Your task to perform on an android device: Clear the shopping cart on newegg. Add "bose soundlink" to the cart on newegg, then select checkout. Image 0: 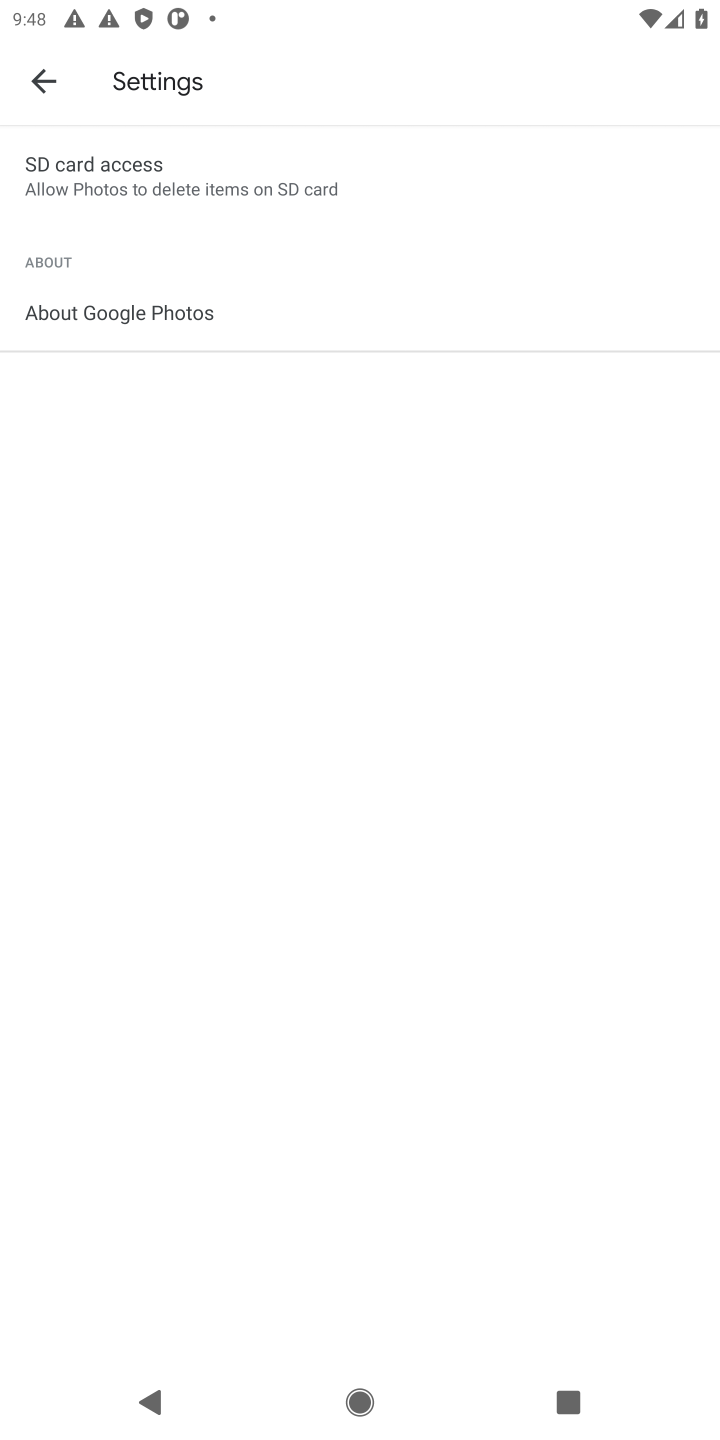
Step 0: press home button
Your task to perform on an android device: Clear the shopping cart on newegg. Add "bose soundlink" to the cart on newegg, then select checkout. Image 1: 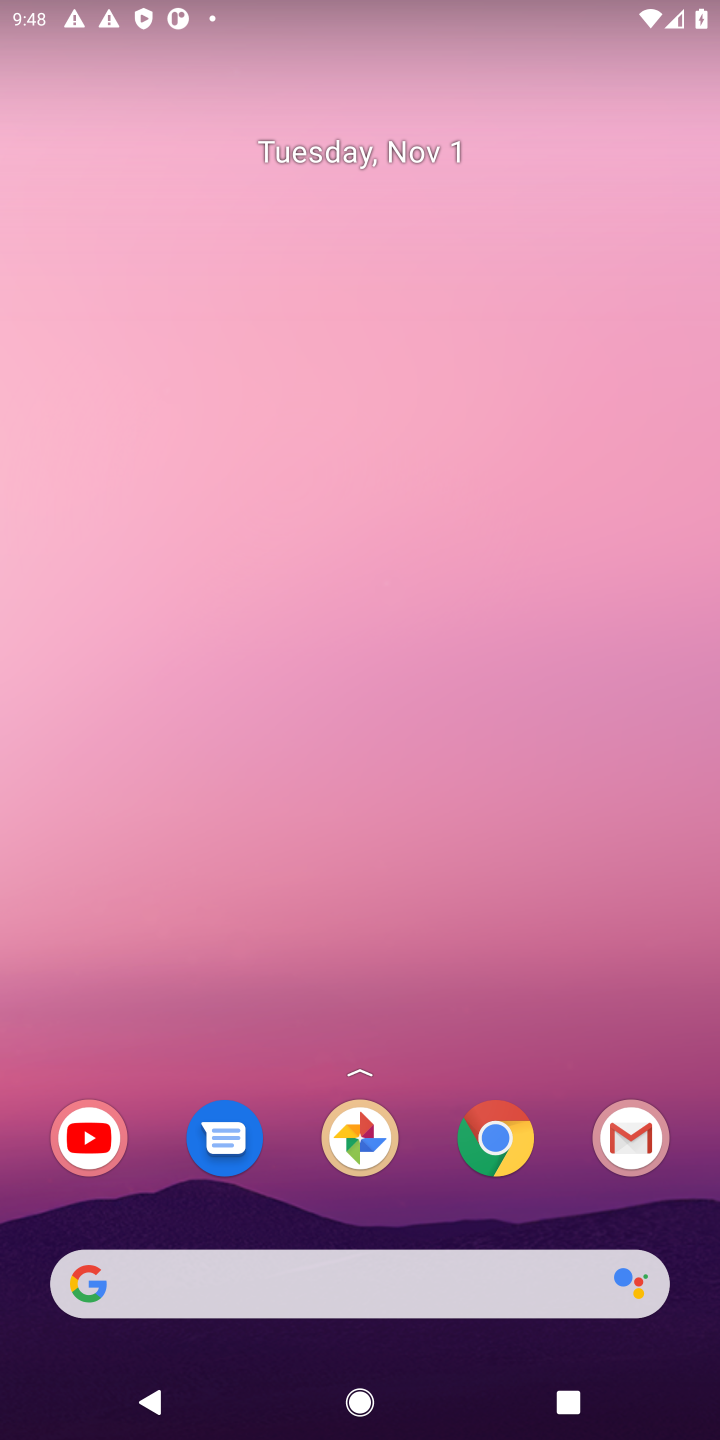
Step 1: drag from (407, 1146) to (377, 282)
Your task to perform on an android device: Clear the shopping cart on newegg. Add "bose soundlink" to the cart on newegg, then select checkout. Image 2: 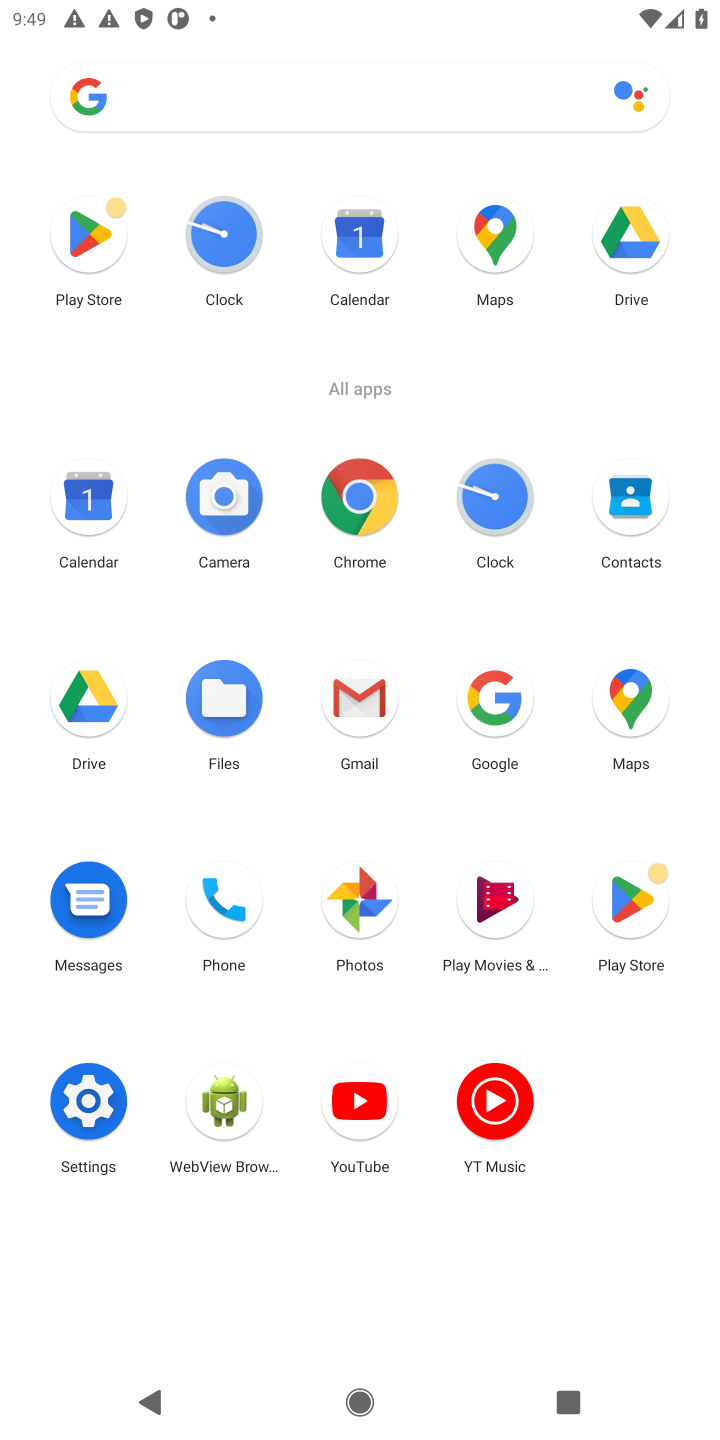
Step 2: click (493, 688)
Your task to perform on an android device: Clear the shopping cart on newegg. Add "bose soundlink" to the cart on newegg, then select checkout. Image 3: 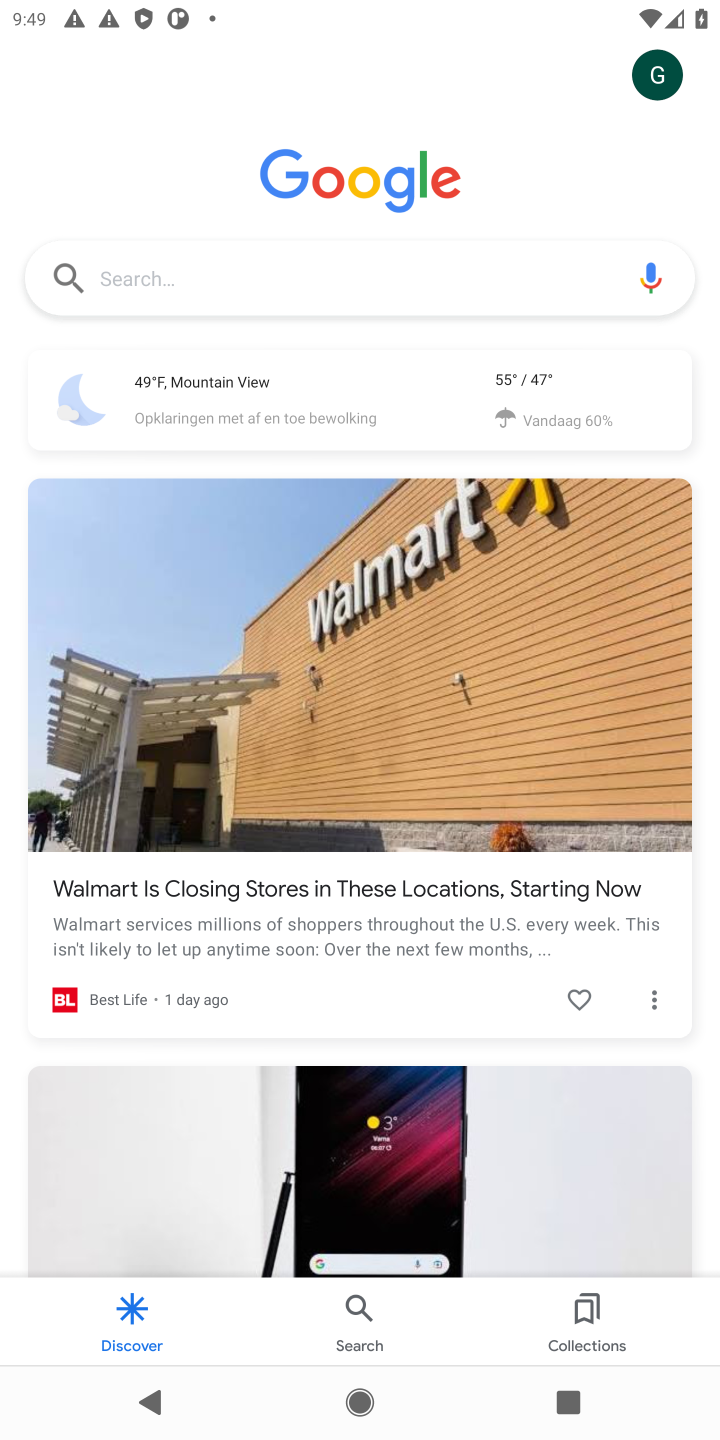
Step 3: click (251, 283)
Your task to perform on an android device: Clear the shopping cart on newegg. Add "bose soundlink" to the cart on newegg, then select checkout. Image 4: 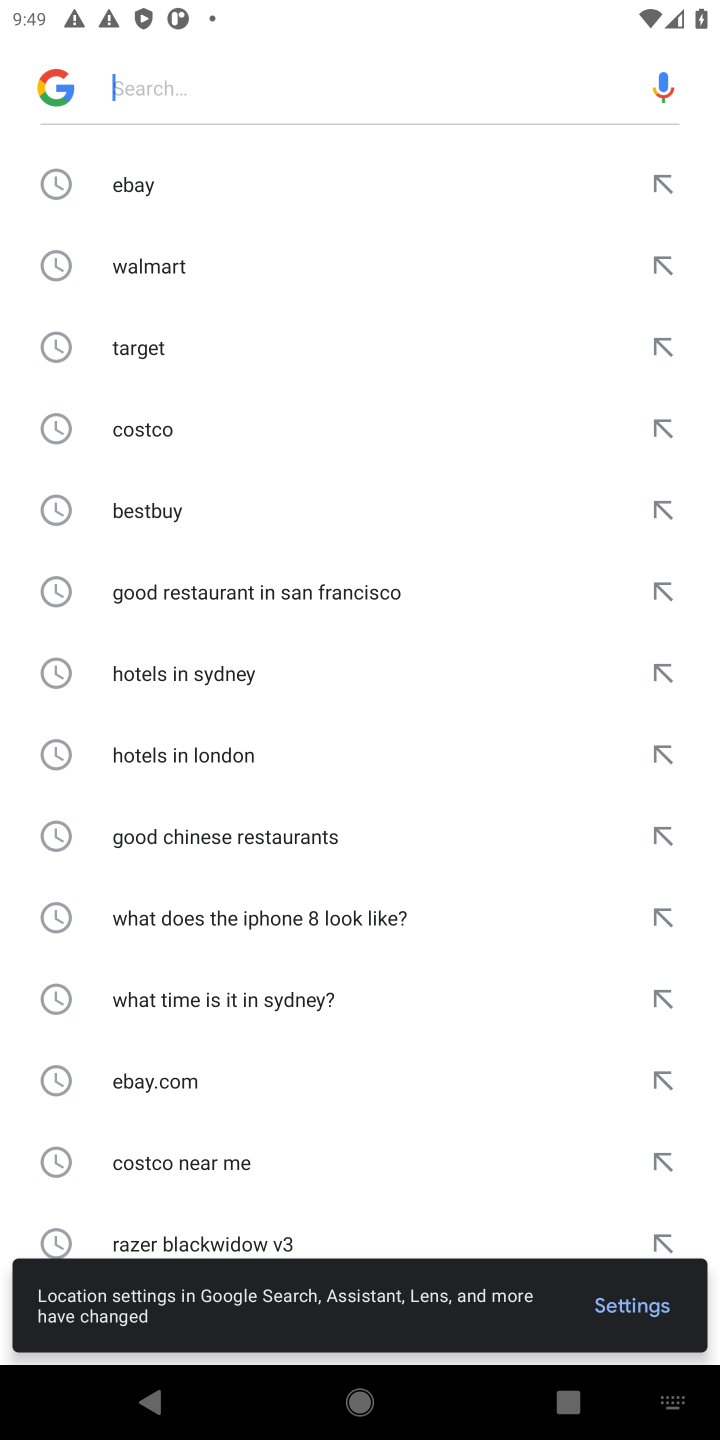
Step 4: type "newegg"
Your task to perform on an android device: Clear the shopping cart on newegg. Add "bose soundlink" to the cart on newegg, then select checkout. Image 5: 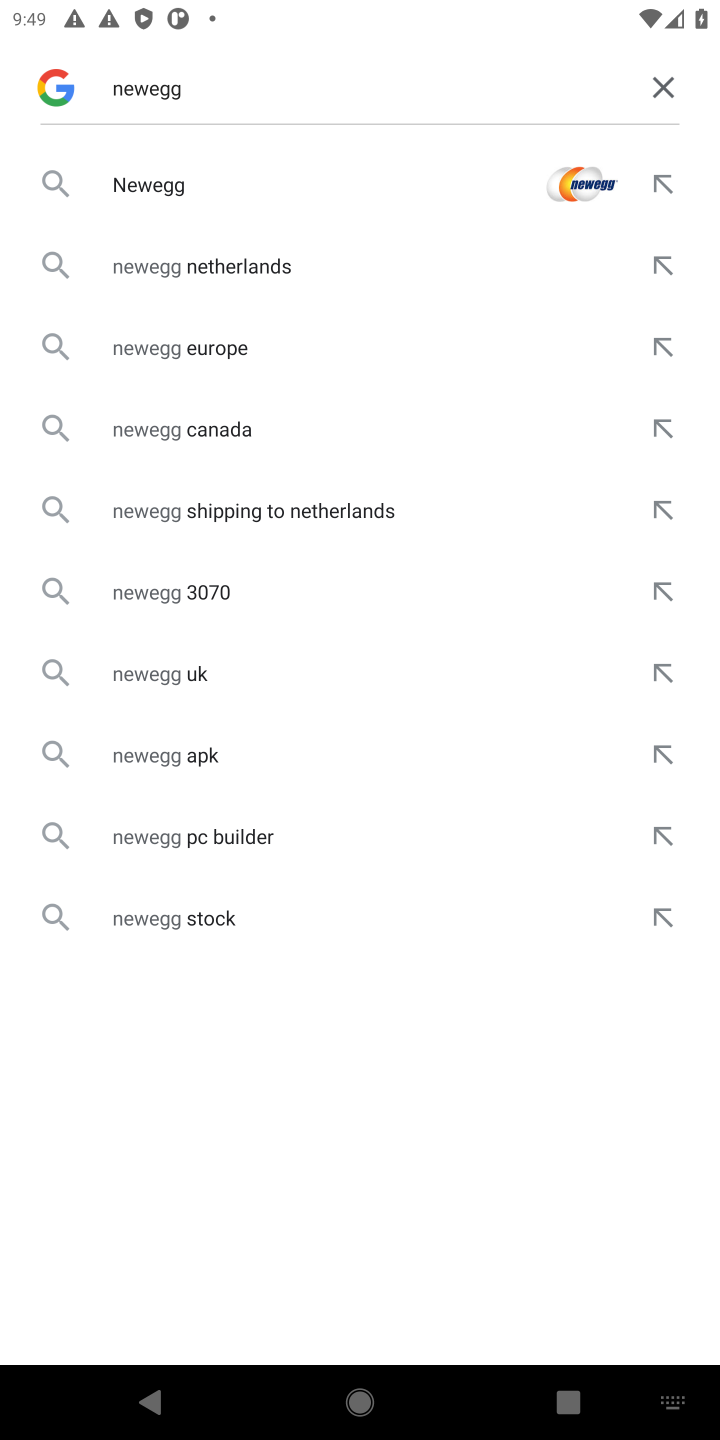
Step 5: type ""
Your task to perform on an android device: Clear the shopping cart on newegg. Add "bose soundlink" to the cart on newegg, then select checkout. Image 6: 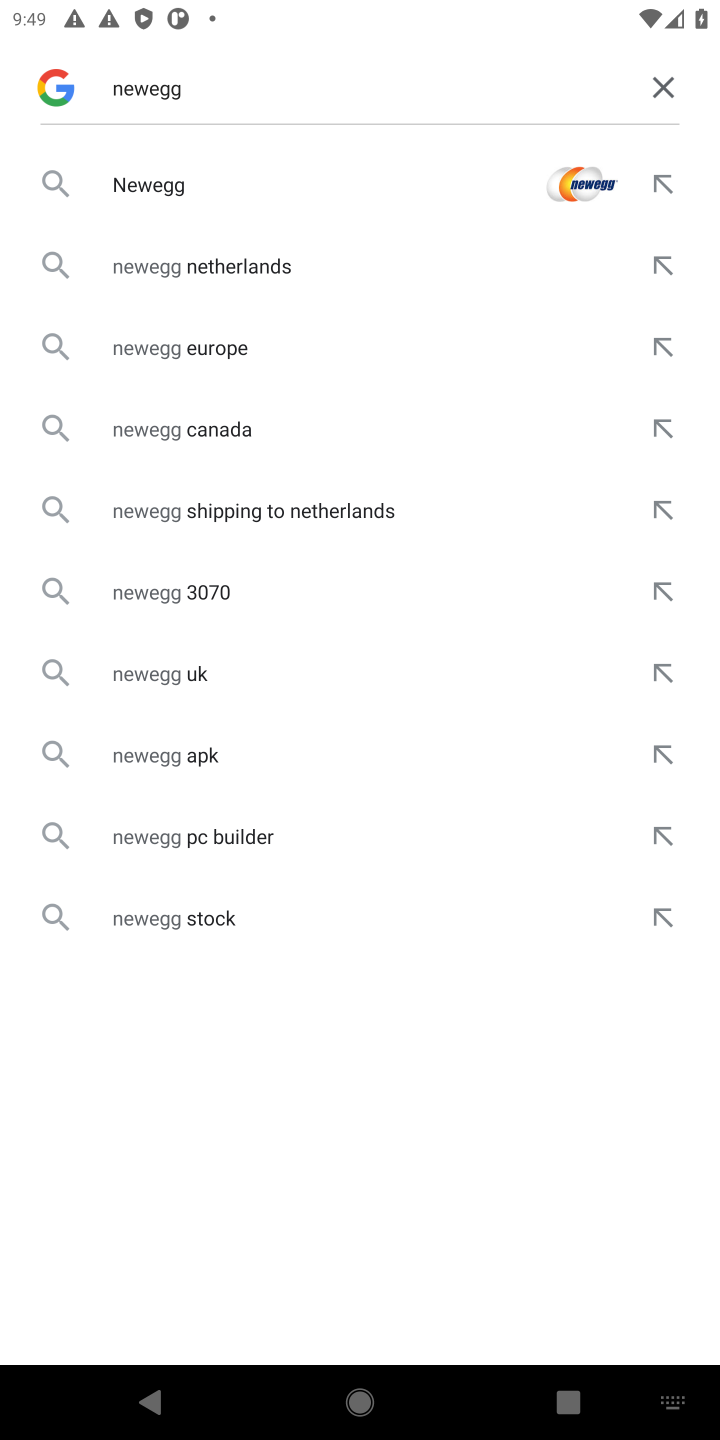
Step 6: click (153, 200)
Your task to perform on an android device: Clear the shopping cart on newegg. Add "bose soundlink" to the cart on newegg, then select checkout. Image 7: 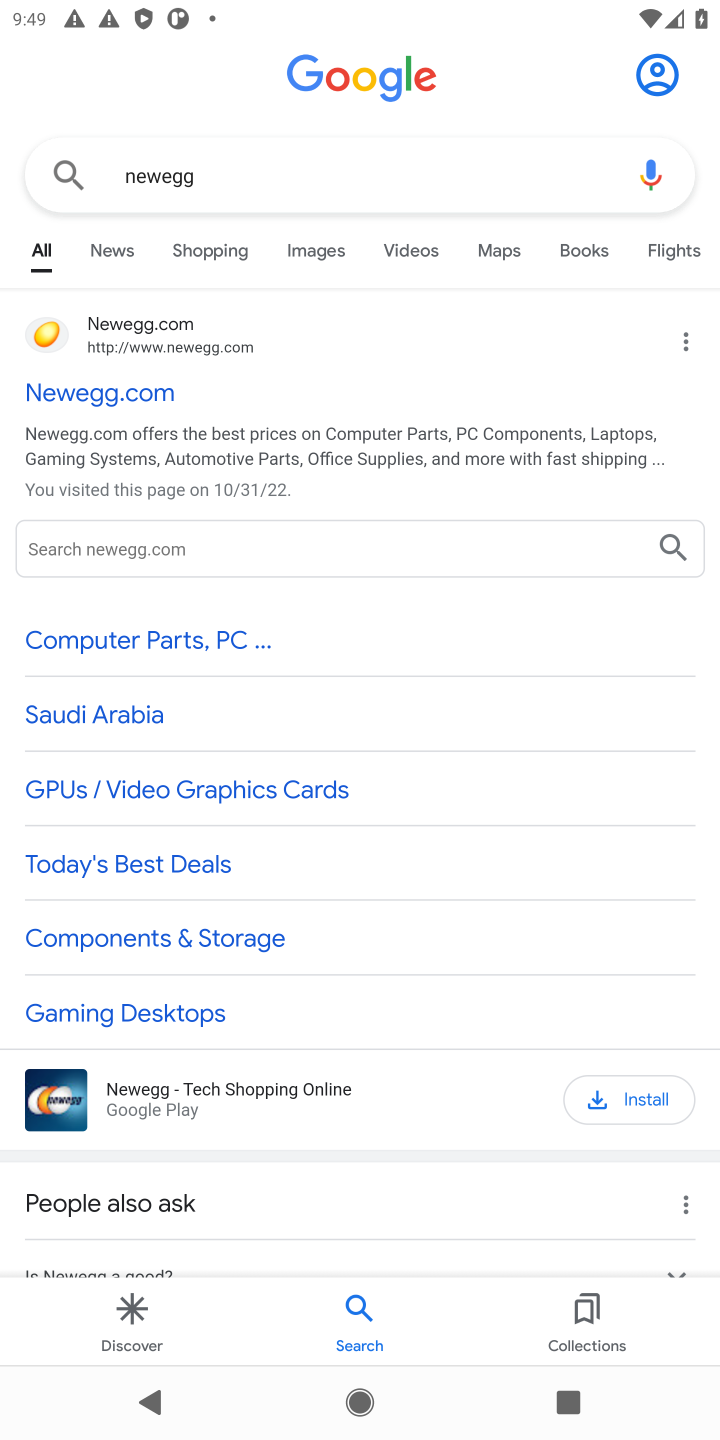
Step 7: click (155, 398)
Your task to perform on an android device: Clear the shopping cart on newegg. Add "bose soundlink" to the cart on newegg, then select checkout. Image 8: 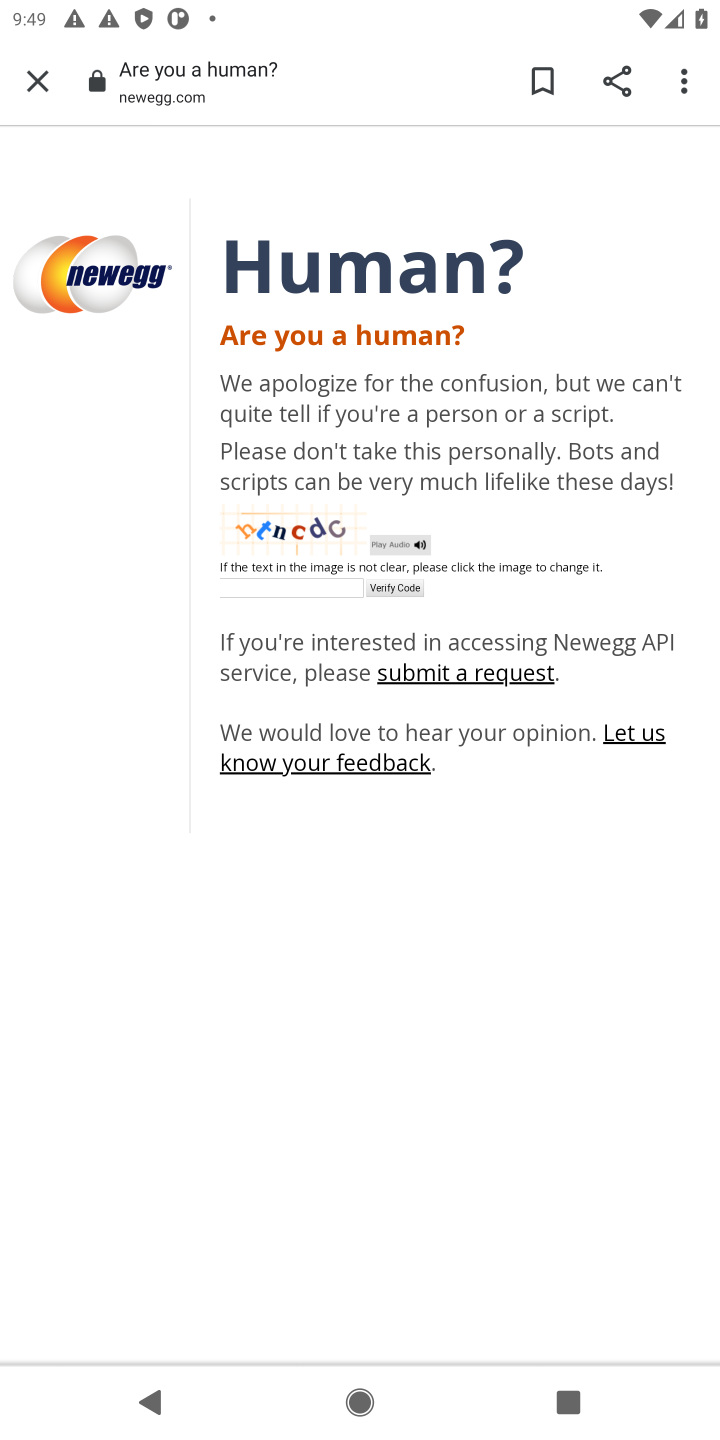
Step 8: click (248, 656)
Your task to perform on an android device: Clear the shopping cart on newegg. Add "bose soundlink" to the cart on newegg, then select checkout. Image 9: 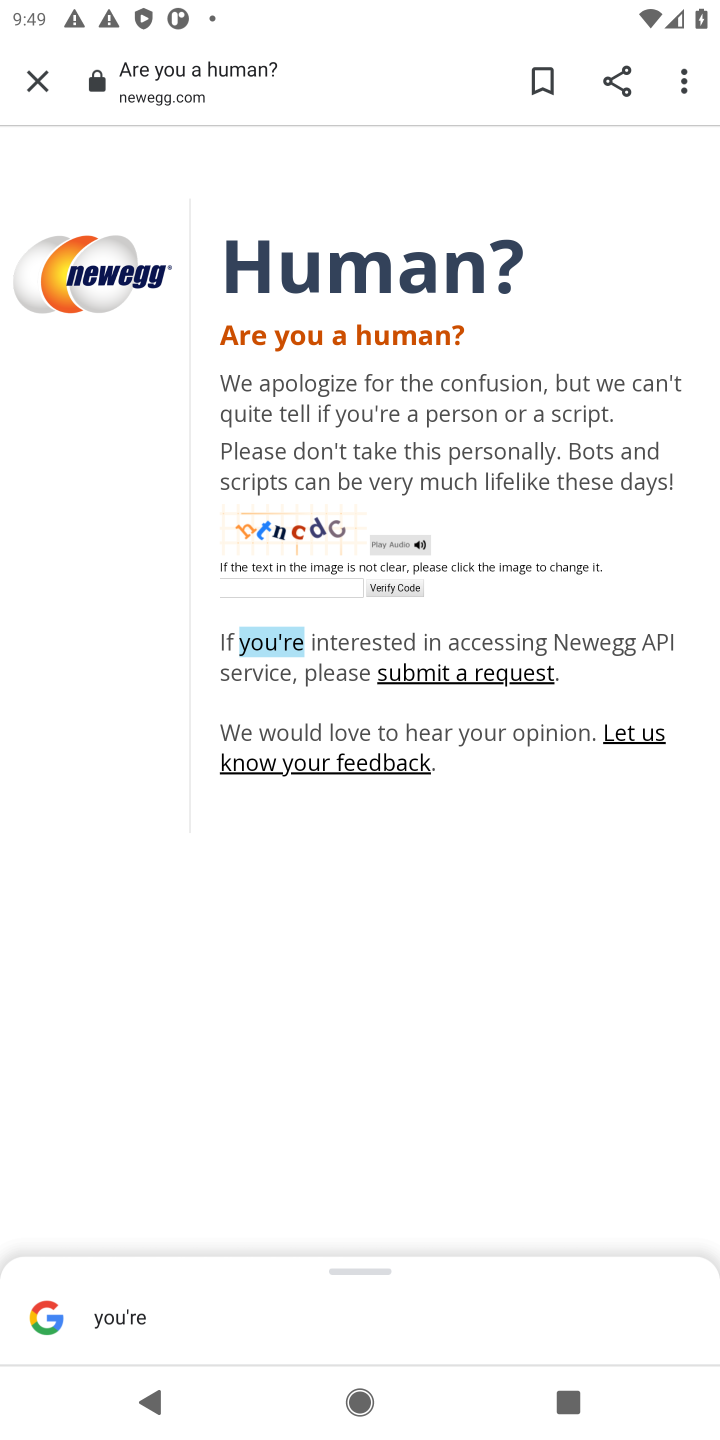
Step 9: click (359, 339)
Your task to perform on an android device: Clear the shopping cart on newegg. Add "bose soundlink" to the cart on newegg, then select checkout. Image 10: 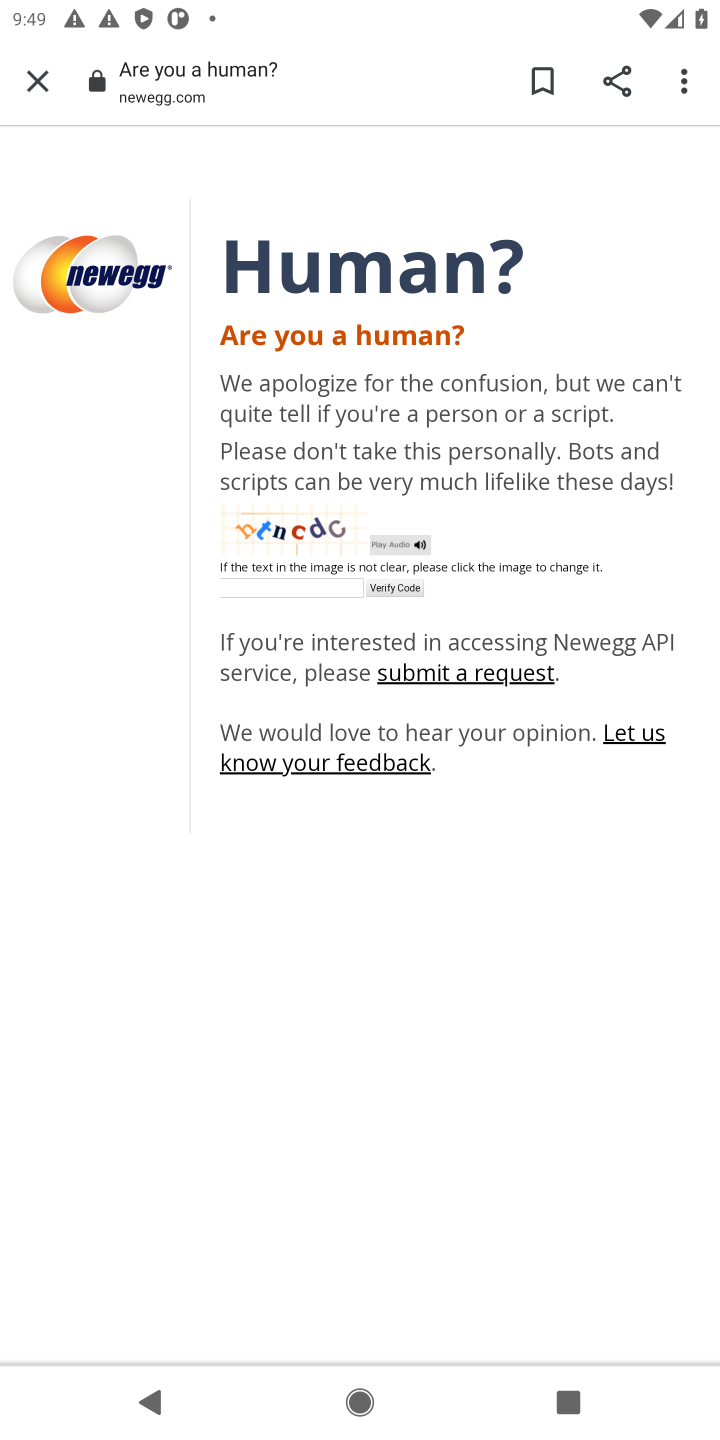
Step 10: task complete